Your task to perform on an android device: Open the calendar app, open the side menu, and click the "Day" option Image 0: 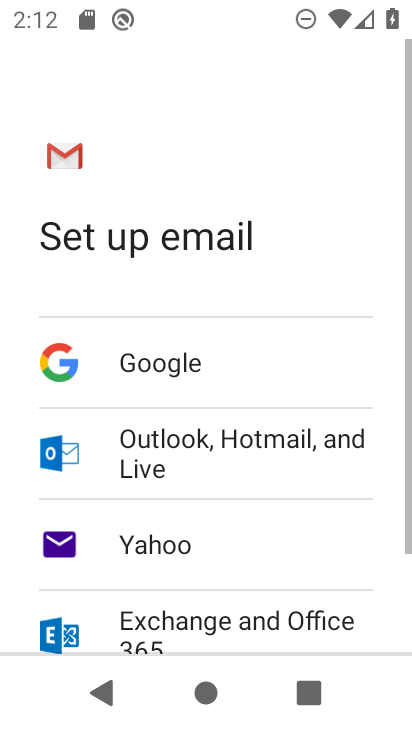
Step 0: press home button
Your task to perform on an android device: Open the calendar app, open the side menu, and click the "Day" option Image 1: 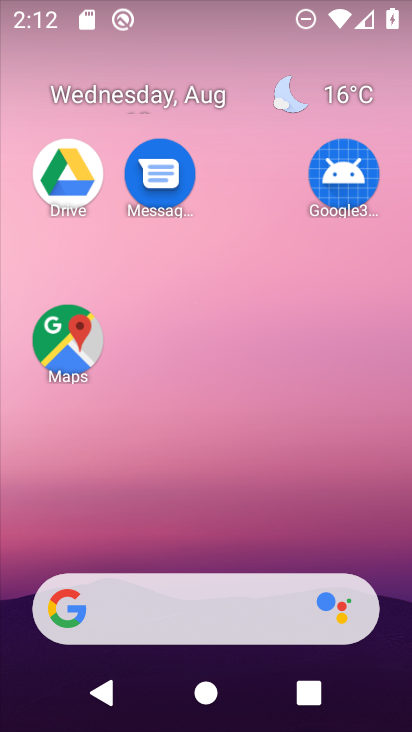
Step 1: click (211, 96)
Your task to perform on an android device: Open the calendar app, open the side menu, and click the "Day" option Image 2: 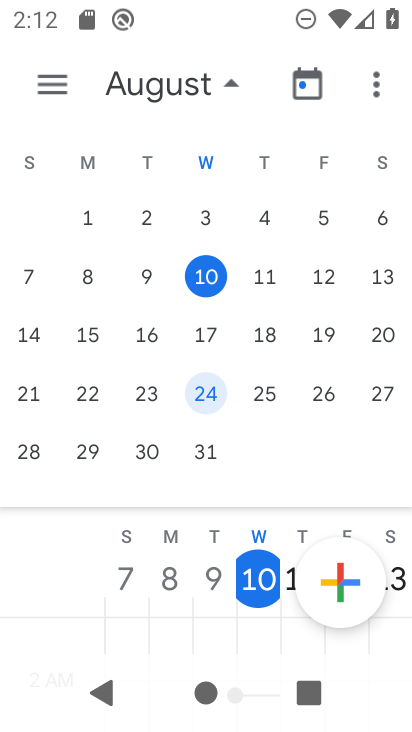
Step 2: click (58, 81)
Your task to perform on an android device: Open the calendar app, open the side menu, and click the "Day" option Image 3: 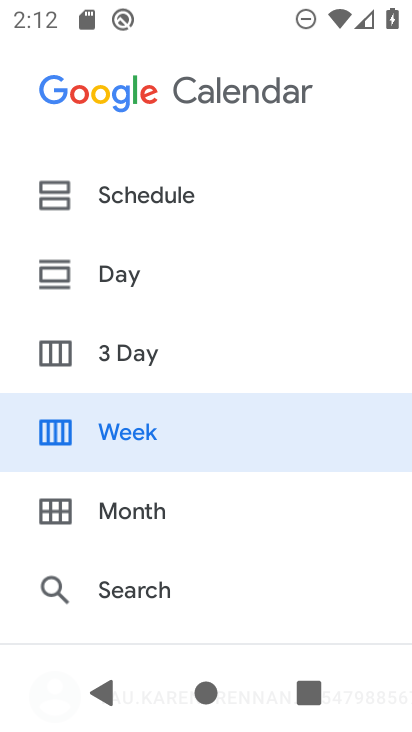
Step 3: click (142, 282)
Your task to perform on an android device: Open the calendar app, open the side menu, and click the "Day" option Image 4: 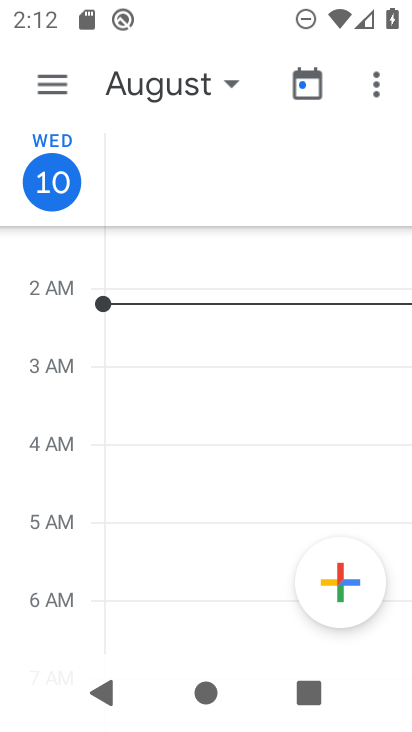
Step 4: task complete